Your task to perform on an android device: check the backup settings in the google photos Image 0: 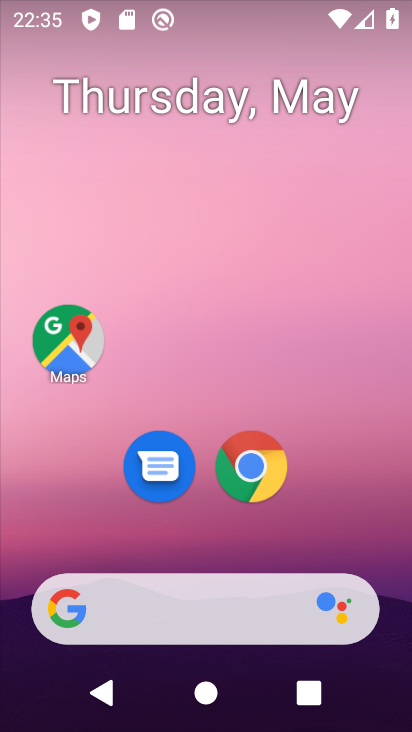
Step 0: drag from (355, 509) to (313, 39)
Your task to perform on an android device: check the backup settings in the google photos Image 1: 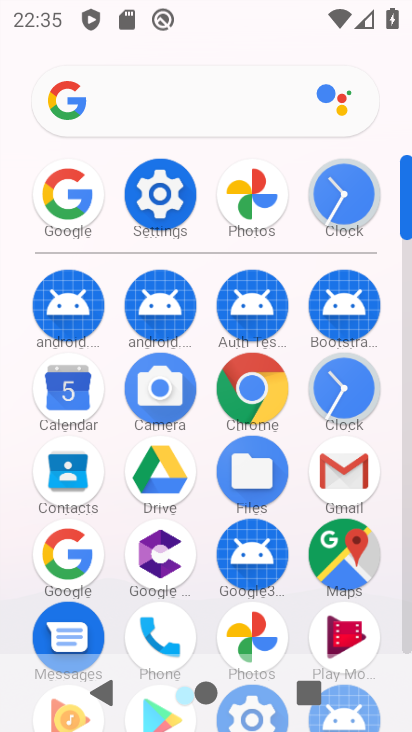
Step 1: click (262, 631)
Your task to perform on an android device: check the backup settings in the google photos Image 2: 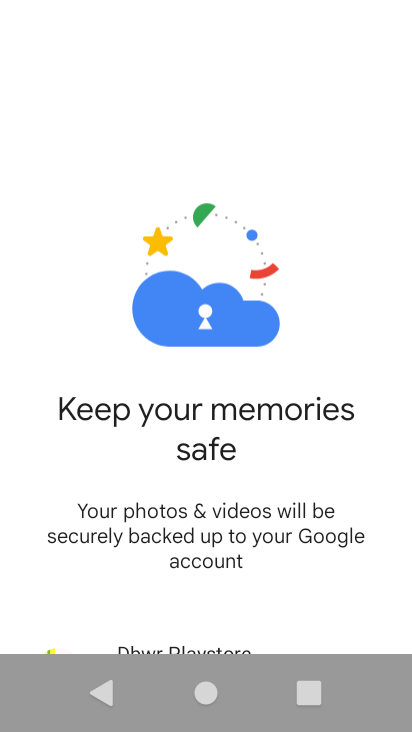
Step 2: click (201, 645)
Your task to perform on an android device: check the backup settings in the google photos Image 3: 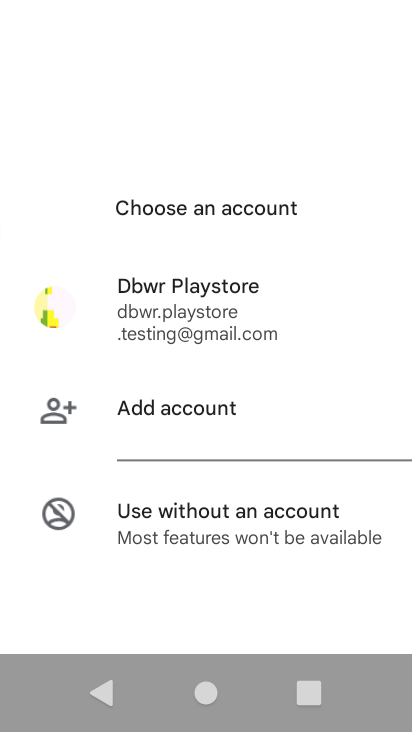
Step 3: click (203, 648)
Your task to perform on an android device: check the backup settings in the google photos Image 4: 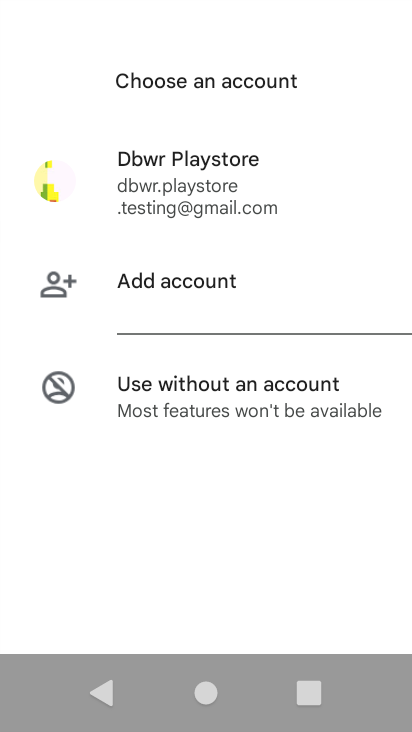
Step 4: click (240, 197)
Your task to perform on an android device: check the backup settings in the google photos Image 5: 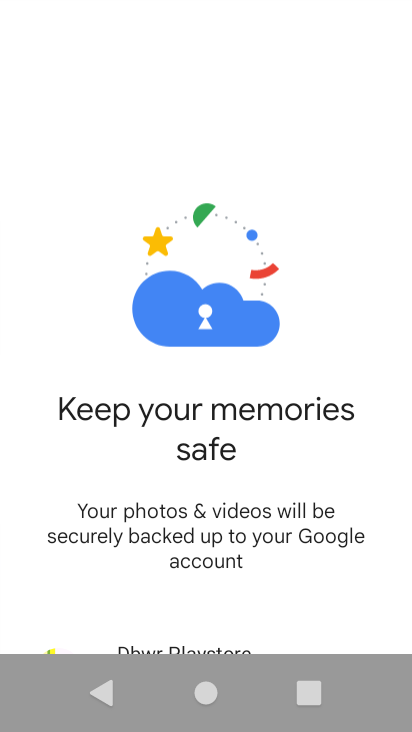
Step 5: press home button
Your task to perform on an android device: check the backup settings in the google photos Image 6: 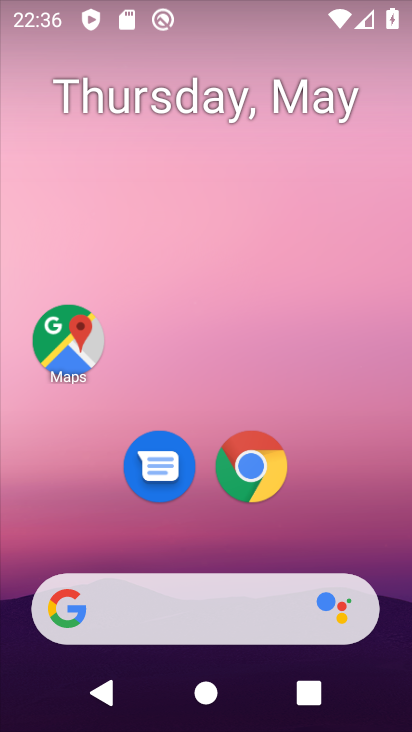
Step 6: drag from (315, 532) to (387, 92)
Your task to perform on an android device: check the backup settings in the google photos Image 7: 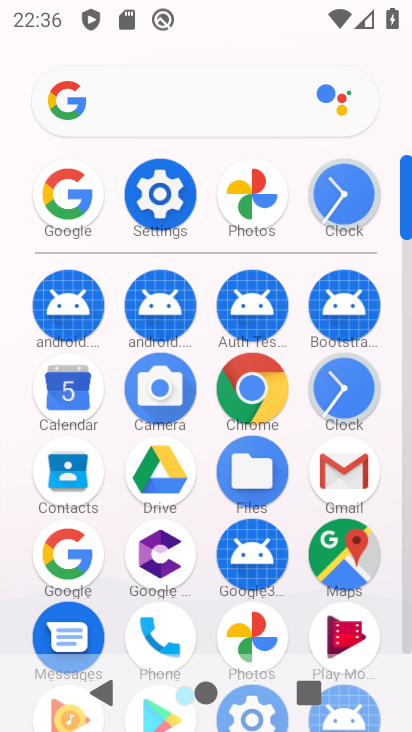
Step 7: click (262, 185)
Your task to perform on an android device: check the backup settings in the google photos Image 8: 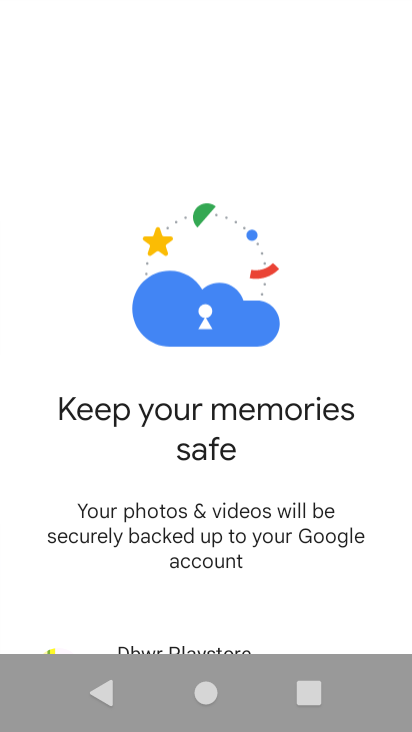
Step 8: click (184, 643)
Your task to perform on an android device: check the backup settings in the google photos Image 9: 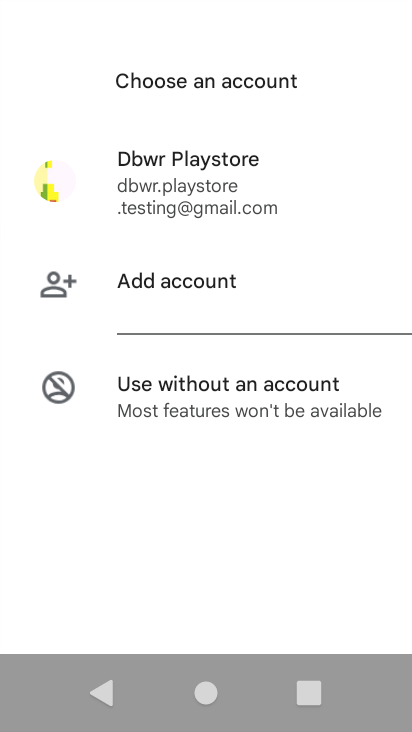
Step 9: click (238, 174)
Your task to perform on an android device: check the backup settings in the google photos Image 10: 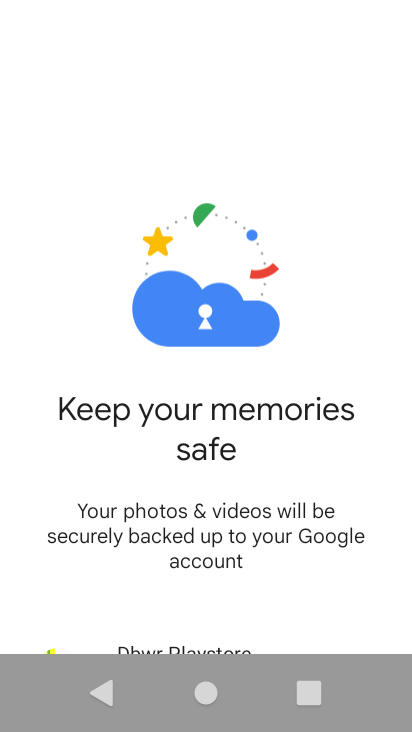
Step 10: task complete